Your task to perform on an android device: Search for "razer naga" on bestbuy, select the first entry, add it to the cart, then select checkout. Image 0: 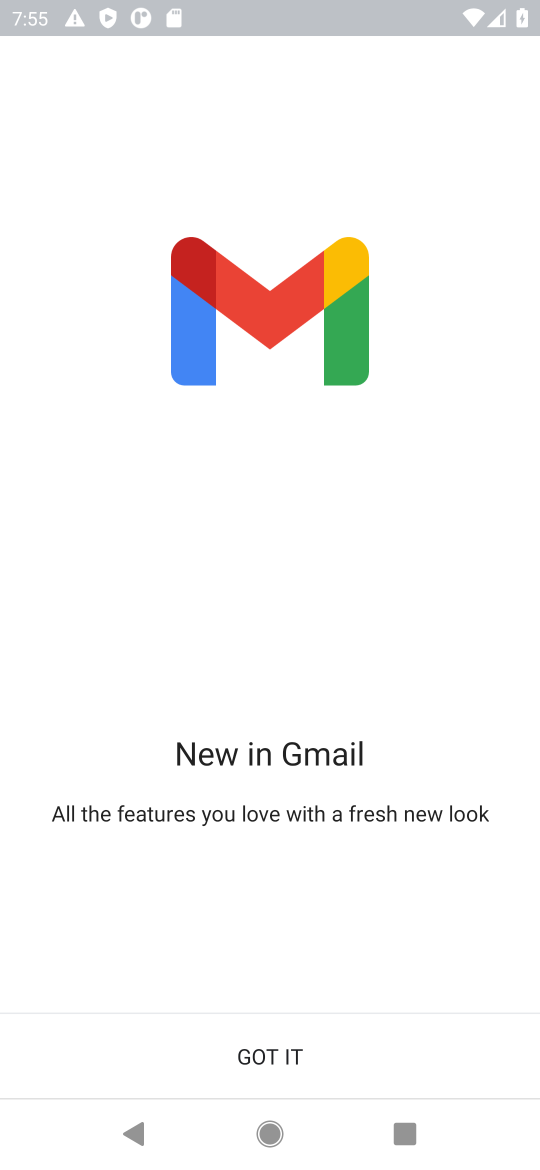
Step 0: press home button
Your task to perform on an android device: Search for "razer naga" on bestbuy, select the first entry, add it to the cart, then select checkout. Image 1: 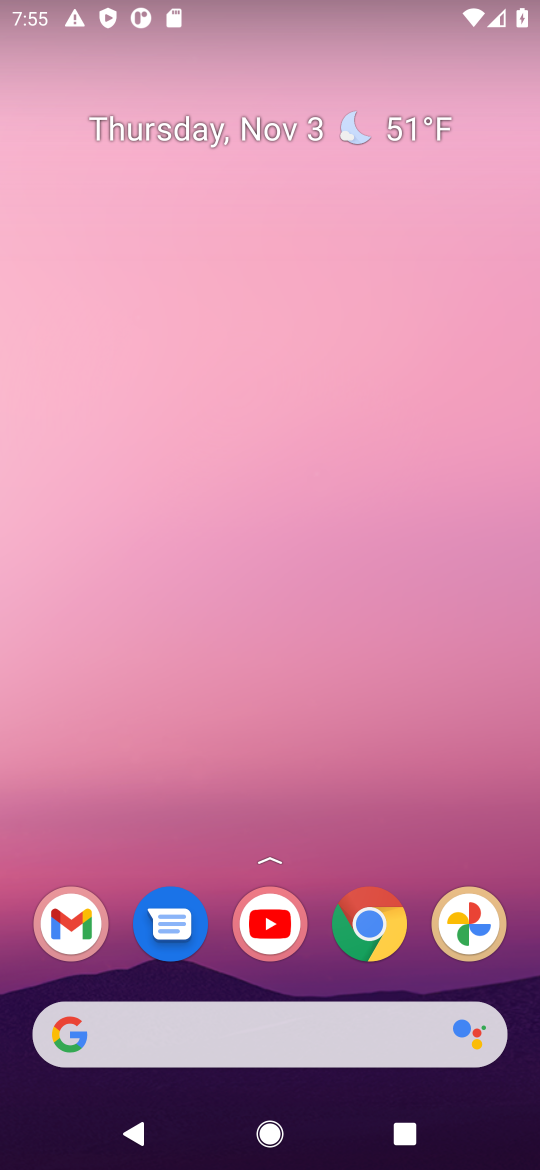
Step 1: drag from (273, 993) to (324, 244)
Your task to perform on an android device: Search for "razer naga" on bestbuy, select the first entry, add it to the cart, then select checkout. Image 2: 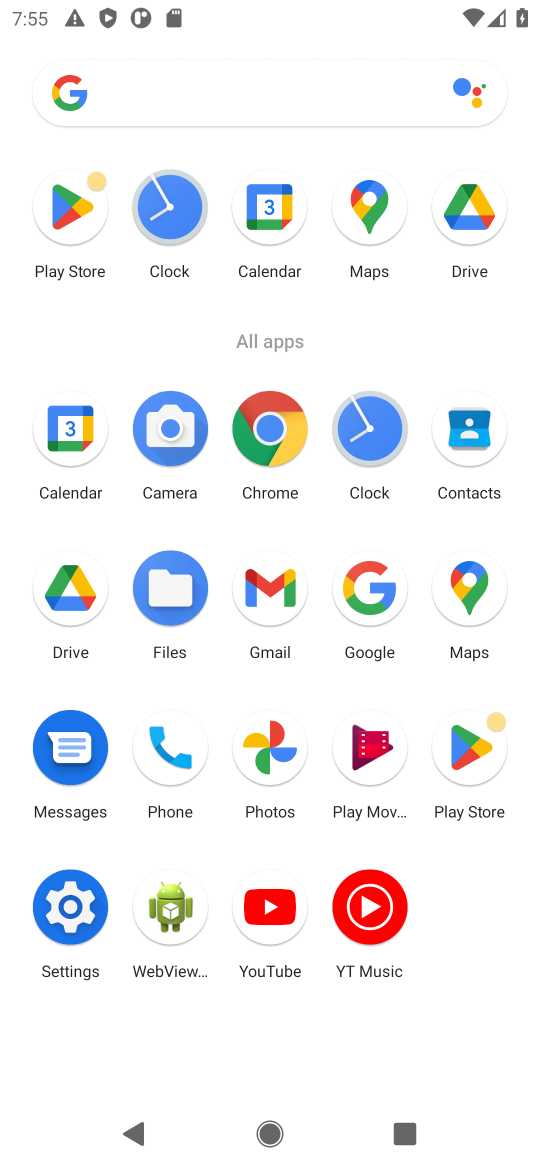
Step 2: click (376, 591)
Your task to perform on an android device: Search for "razer naga" on bestbuy, select the first entry, add it to the cart, then select checkout. Image 3: 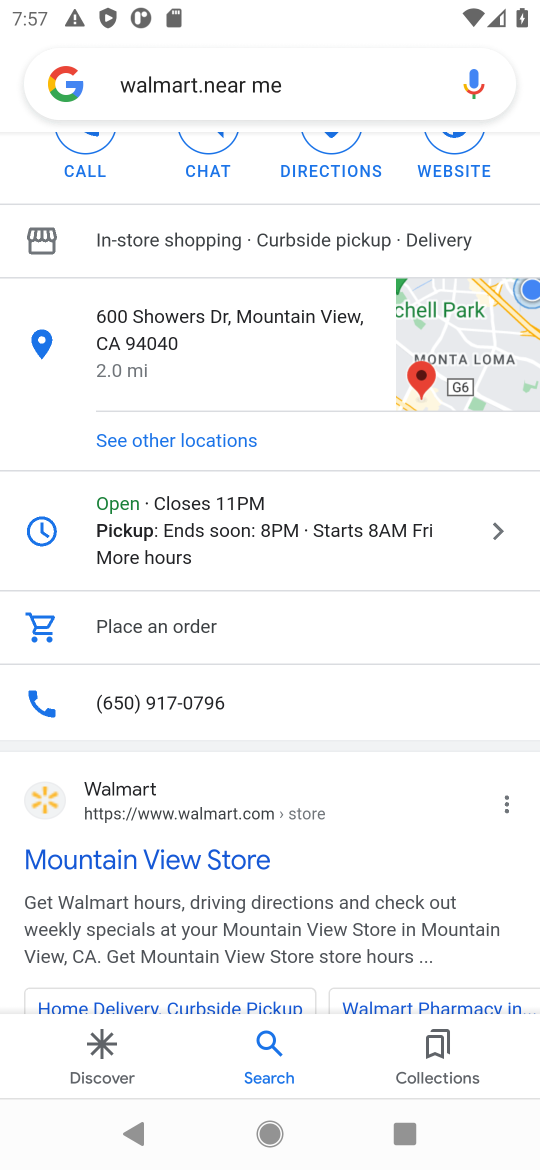
Step 3: click (334, 78)
Your task to perform on an android device: Search for "razer naga" on bestbuy, select the first entry, add it to the cart, then select checkout. Image 4: 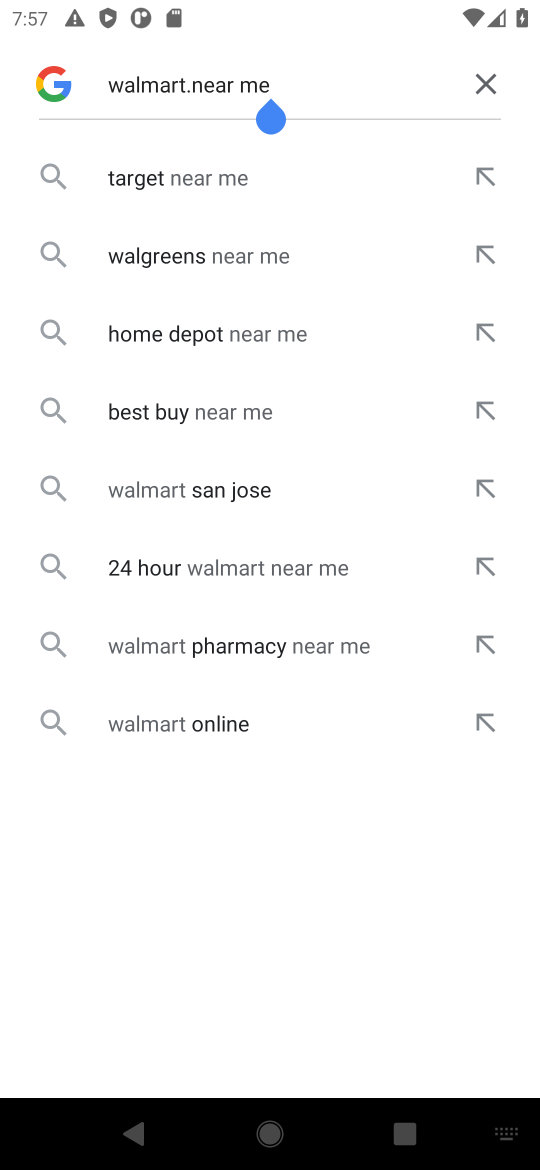
Step 4: click (482, 88)
Your task to perform on an android device: Search for "razer naga" on bestbuy, select the first entry, add it to the cart, then select checkout. Image 5: 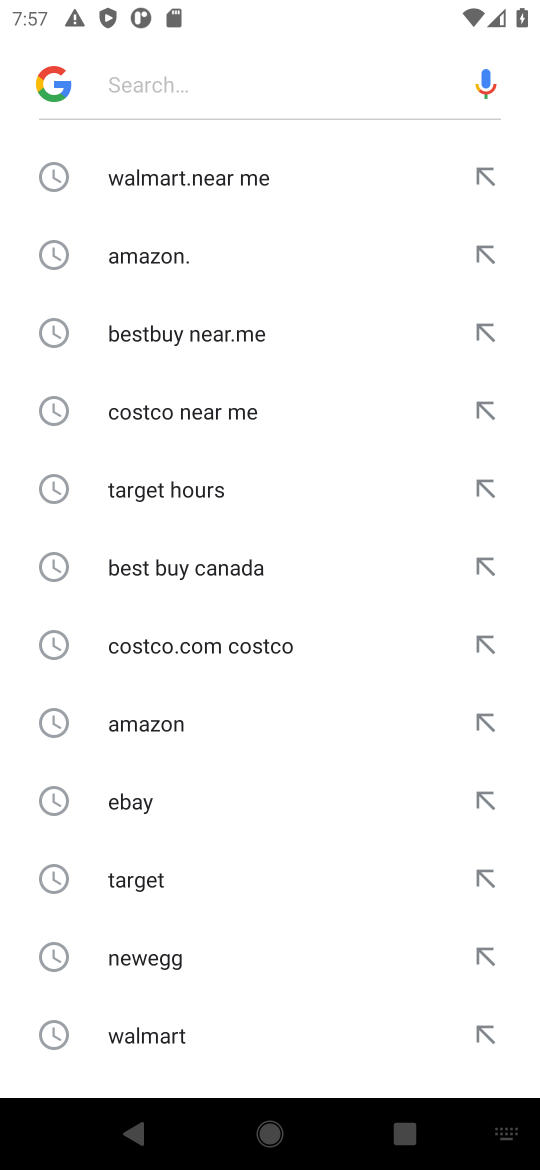
Step 5: click (213, 342)
Your task to perform on an android device: Search for "razer naga" on bestbuy, select the first entry, add it to the cart, then select checkout. Image 6: 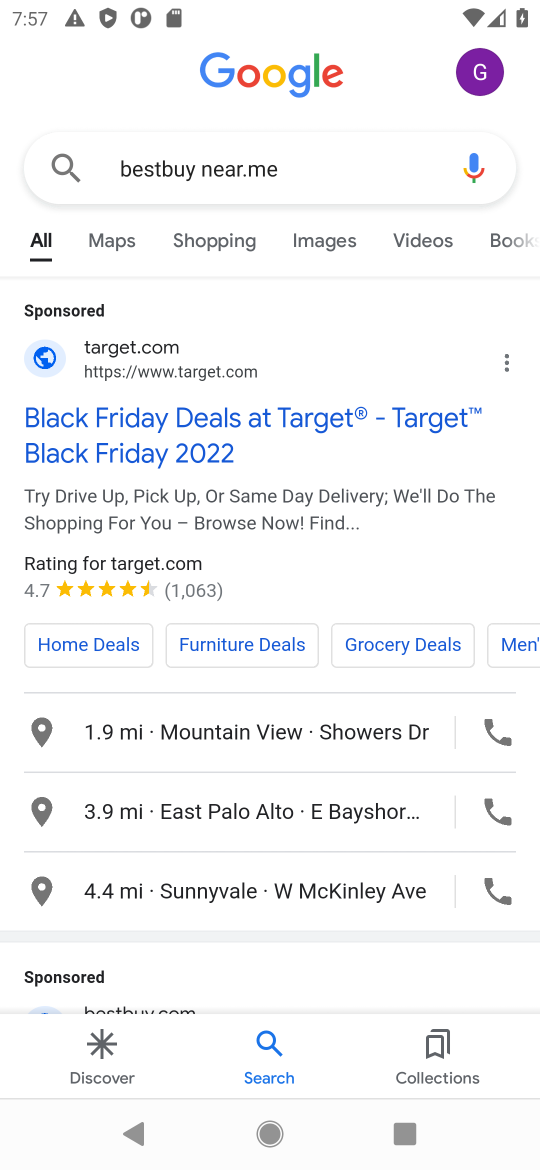
Step 6: drag from (141, 907) to (174, 437)
Your task to perform on an android device: Search for "razer naga" on bestbuy, select the first entry, add it to the cart, then select checkout. Image 7: 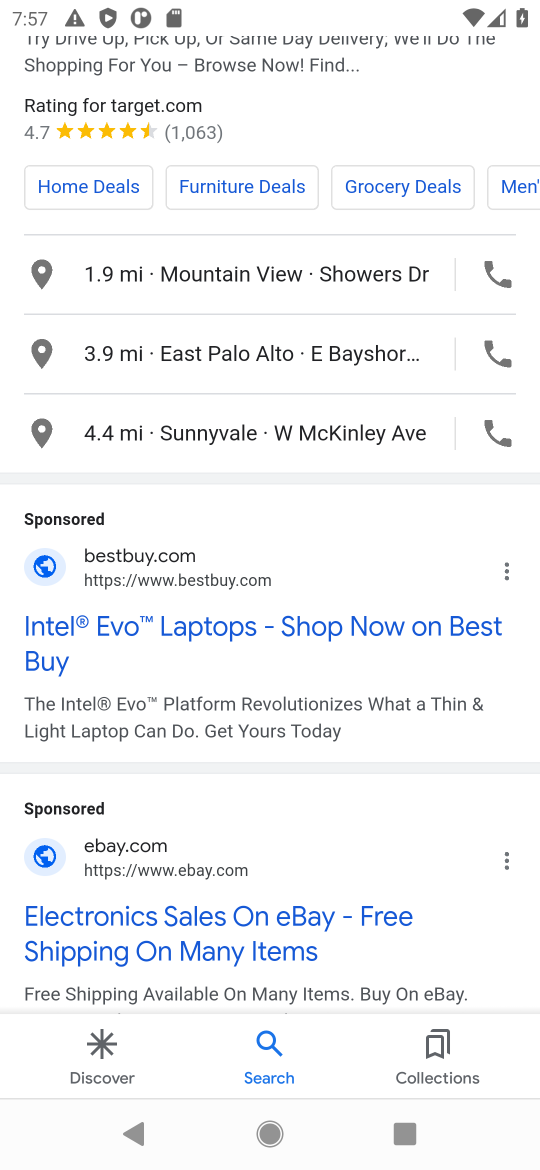
Step 7: click (41, 567)
Your task to perform on an android device: Search for "razer naga" on bestbuy, select the first entry, add it to the cart, then select checkout. Image 8: 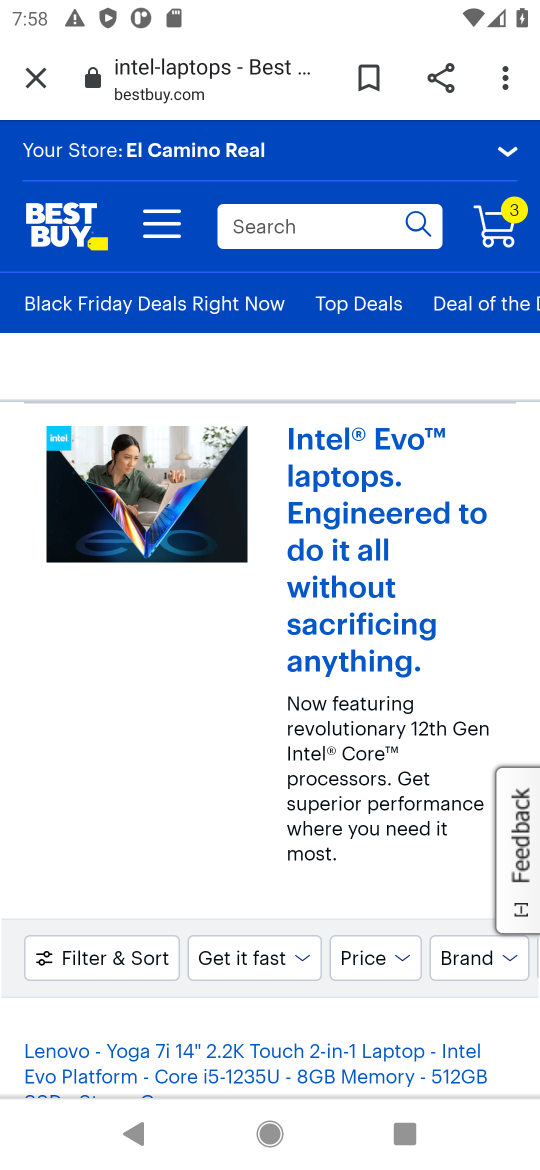
Step 8: click (334, 225)
Your task to perform on an android device: Search for "razer naga" on bestbuy, select the first entry, add it to the cart, then select checkout. Image 9: 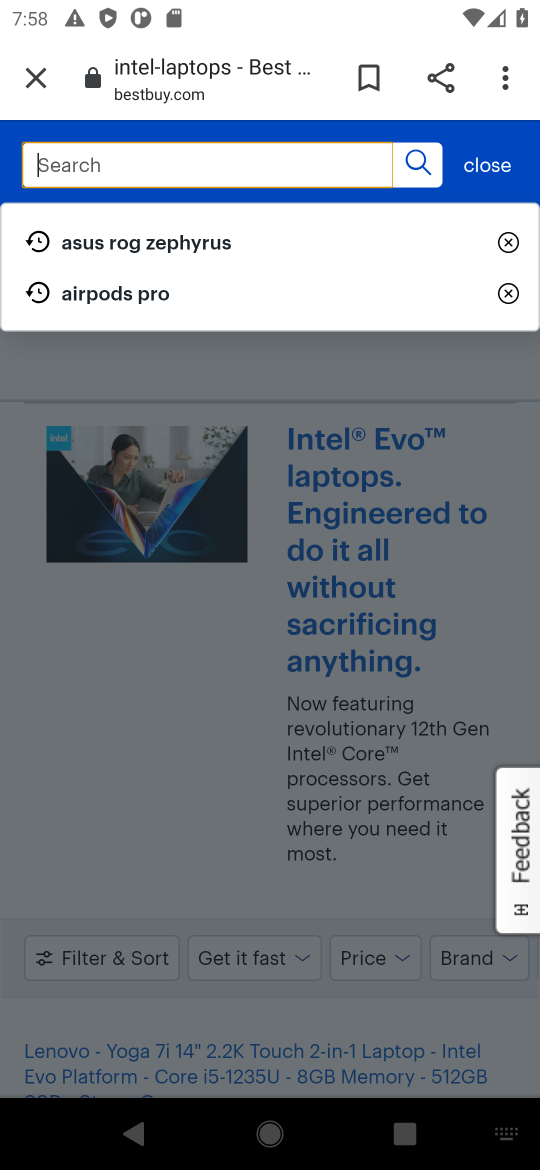
Step 9: type "razer naga "
Your task to perform on an android device: Search for "razer naga" on bestbuy, select the first entry, add it to the cart, then select checkout. Image 10: 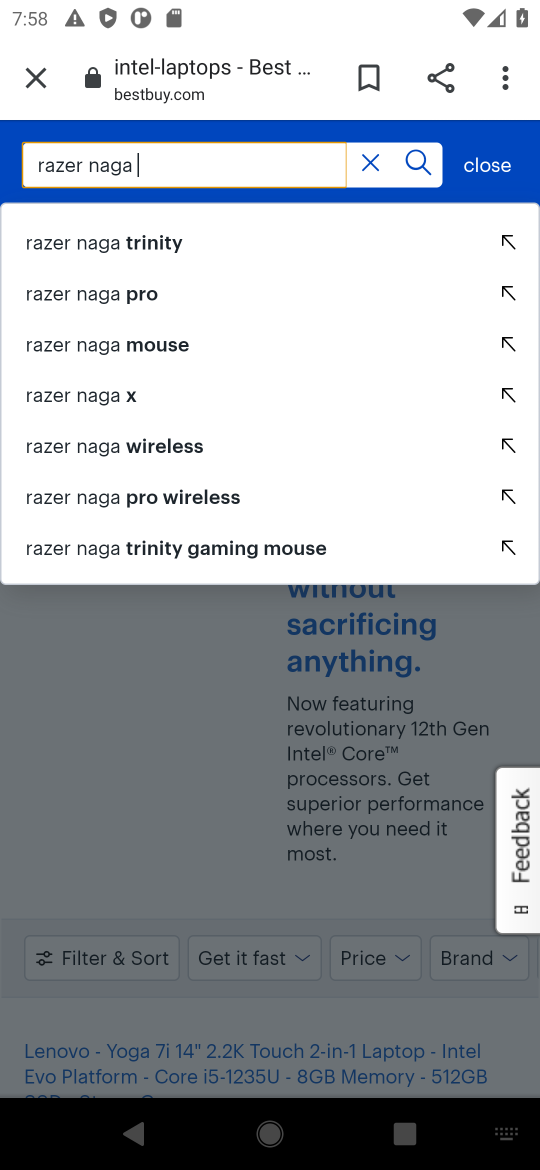
Step 10: click (71, 295)
Your task to perform on an android device: Search for "razer naga" on bestbuy, select the first entry, add it to the cart, then select checkout. Image 11: 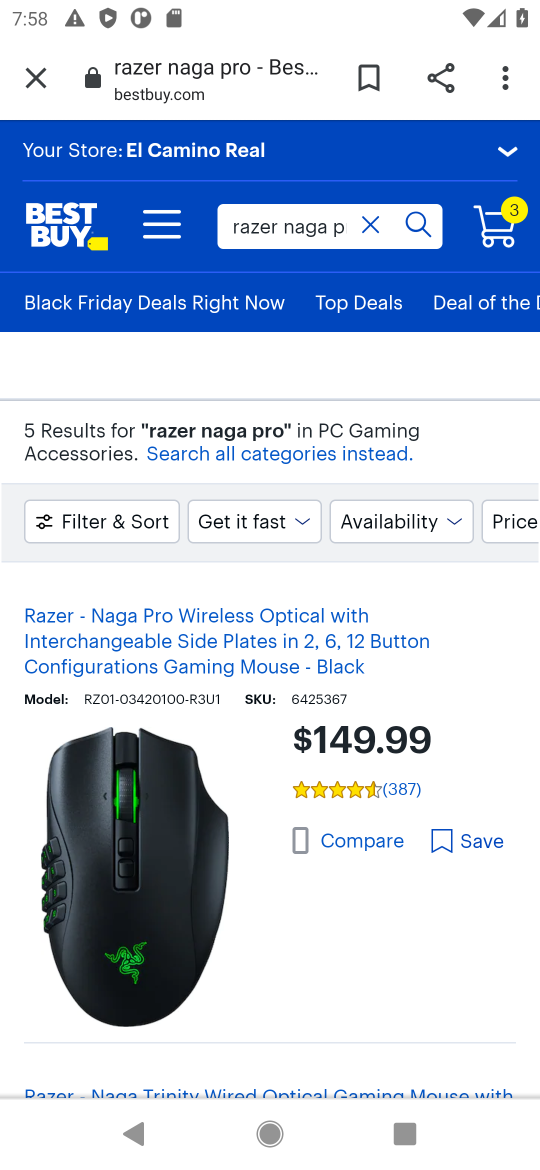
Step 11: drag from (283, 908) to (317, 591)
Your task to perform on an android device: Search for "razer naga" on bestbuy, select the first entry, add it to the cart, then select checkout. Image 12: 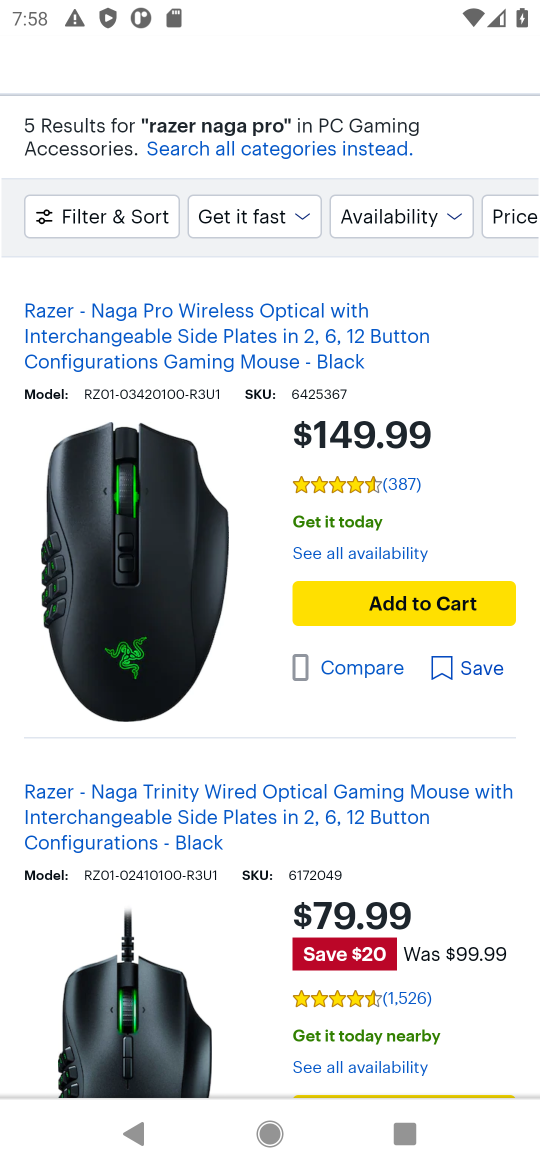
Step 12: click (365, 591)
Your task to perform on an android device: Search for "razer naga" on bestbuy, select the first entry, add it to the cart, then select checkout. Image 13: 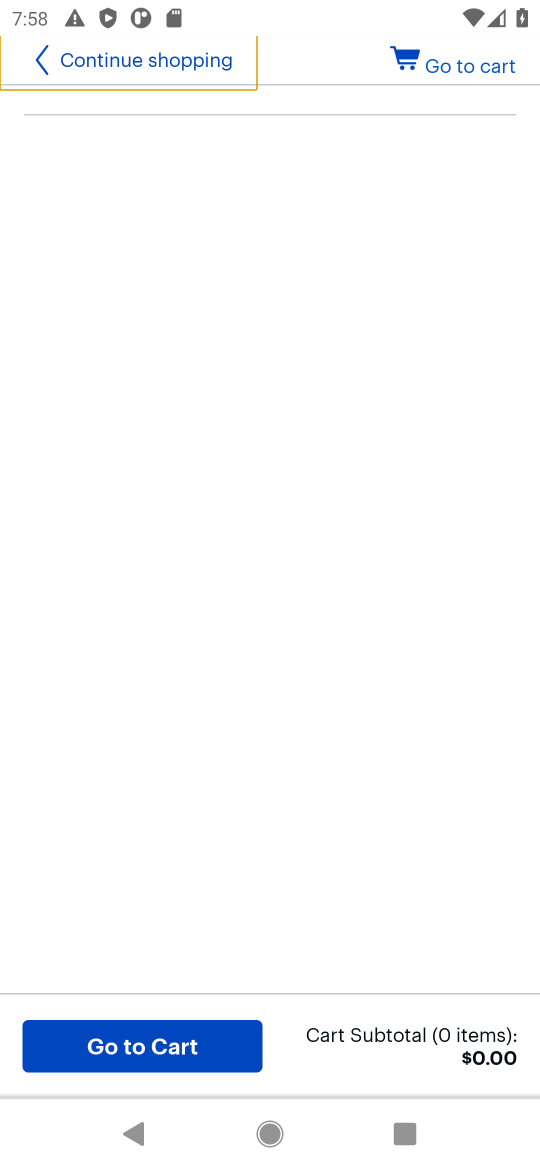
Step 13: click (396, 596)
Your task to perform on an android device: Search for "razer naga" on bestbuy, select the first entry, add it to the cart, then select checkout. Image 14: 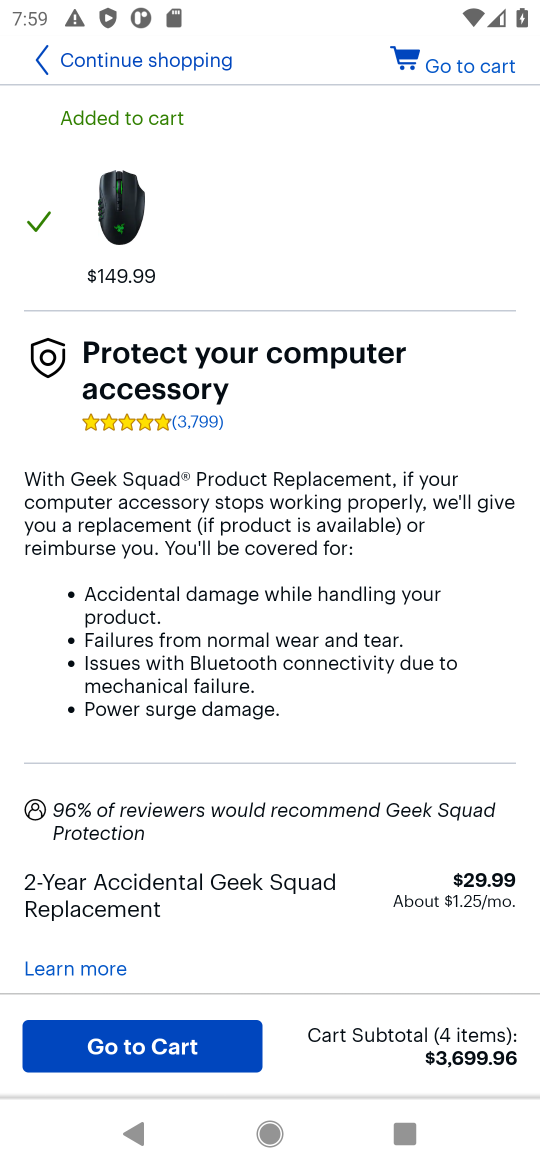
Step 14: task complete